Your task to perform on an android device: turn on bluetooth scan Image 0: 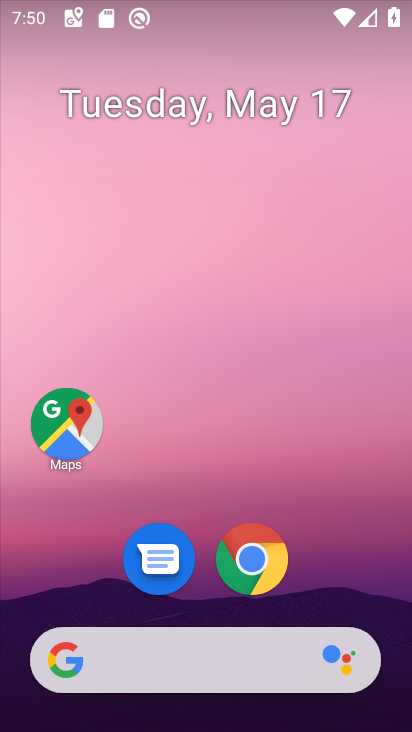
Step 0: drag from (208, 625) to (165, 101)
Your task to perform on an android device: turn on bluetooth scan Image 1: 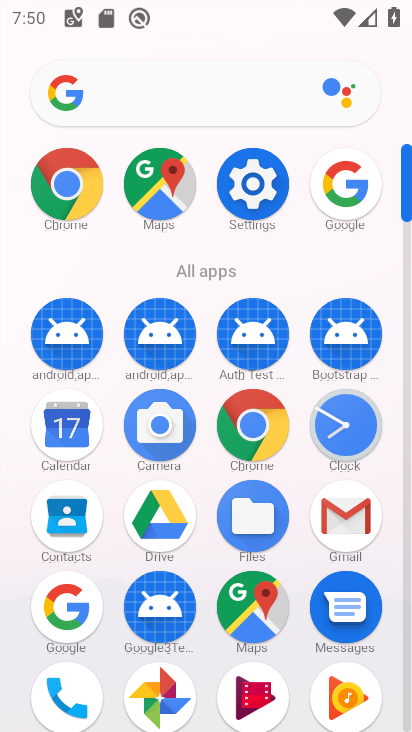
Step 1: click (266, 171)
Your task to perform on an android device: turn on bluetooth scan Image 2: 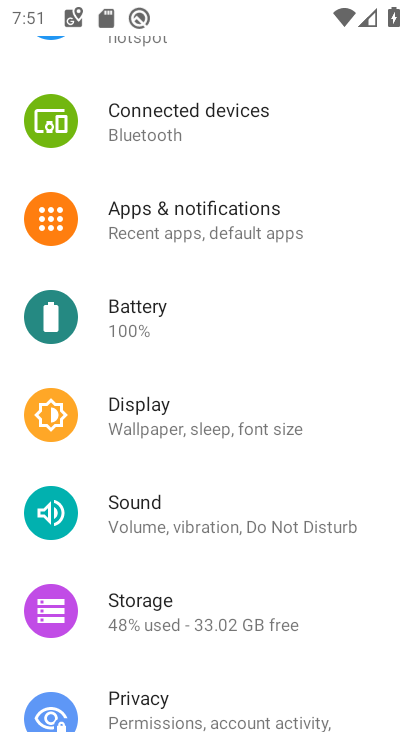
Step 2: click (329, 129)
Your task to perform on an android device: turn on bluetooth scan Image 3: 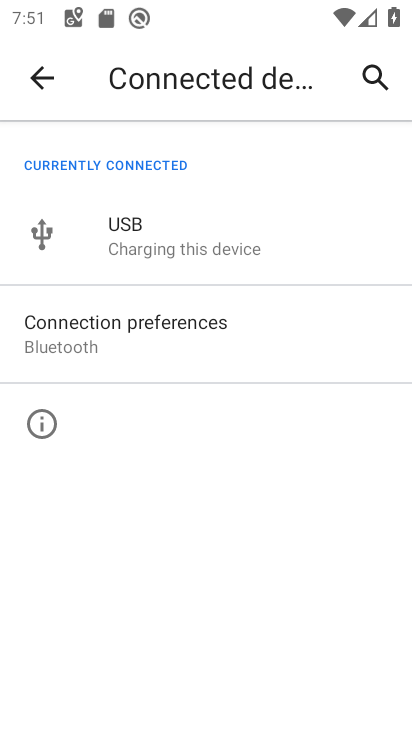
Step 3: click (95, 335)
Your task to perform on an android device: turn on bluetooth scan Image 4: 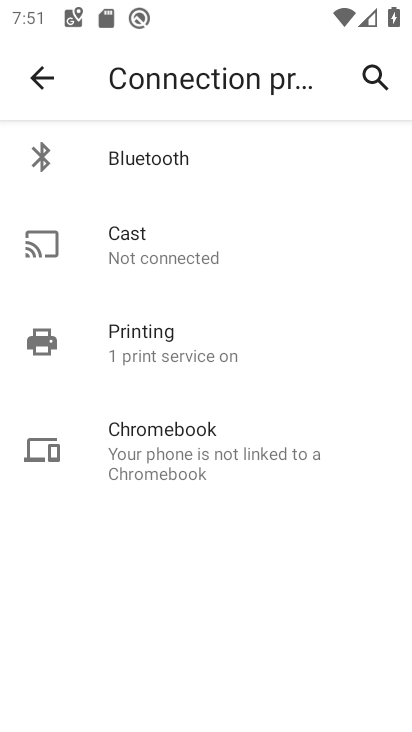
Step 4: click (188, 141)
Your task to perform on an android device: turn on bluetooth scan Image 5: 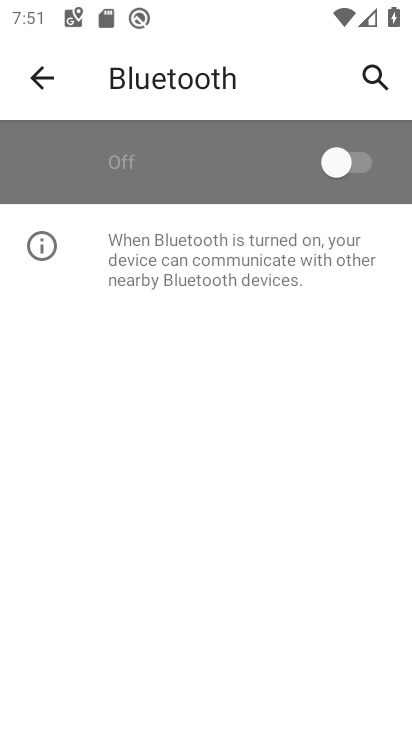
Step 5: click (229, 163)
Your task to perform on an android device: turn on bluetooth scan Image 6: 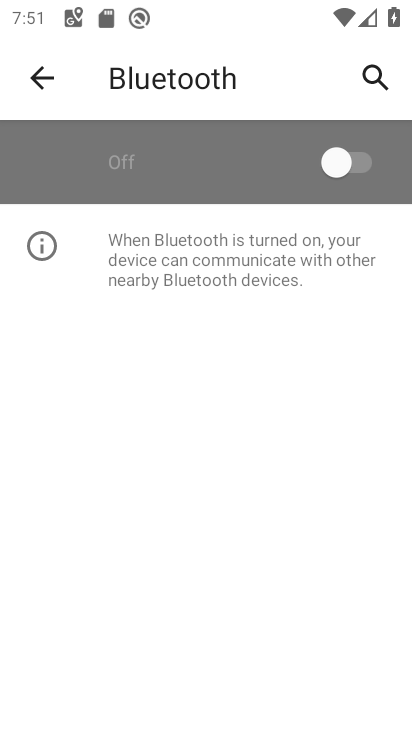
Step 6: task complete